Your task to perform on an android device: Open Google Chrome and click the shortcut for Amazon.com Image 0: 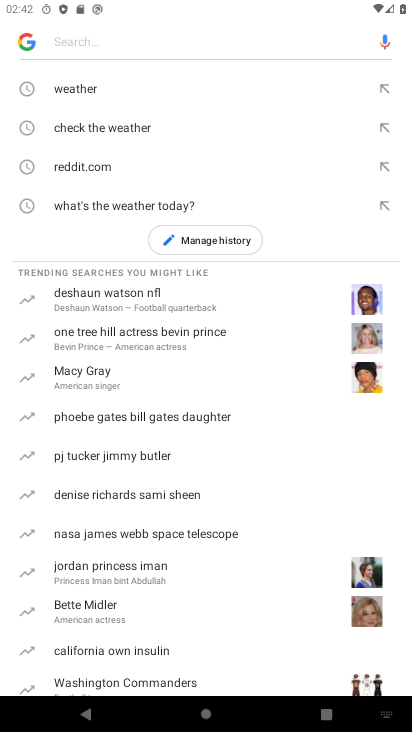
Step 0: press home button
Your task to perform on an android device: Open Google Chrome and click the shortcut for Amazon.com Image 1: 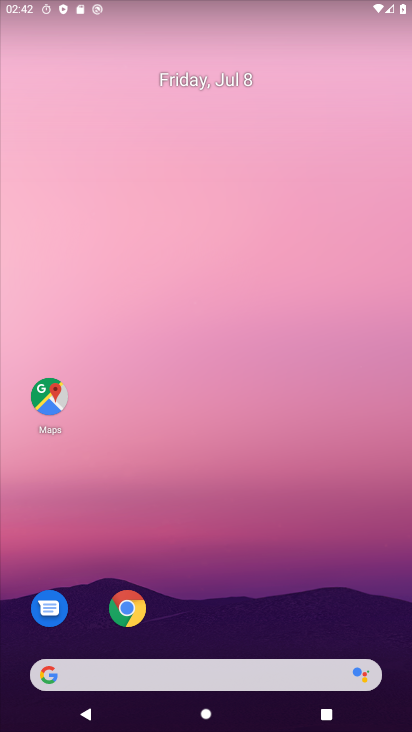
Step 1: click (130, 609)
Your task to perform on an android device: Open Google Chrome and click the shortcut for Amazon.com Image 2: 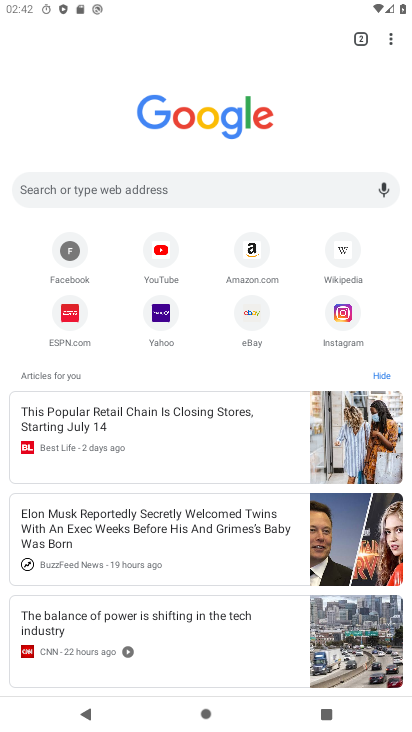
Step 2: click (249, 254)
Your task to perform on an android device: Open Google Chrome and click the shortcut for Amazon.com Image 3: 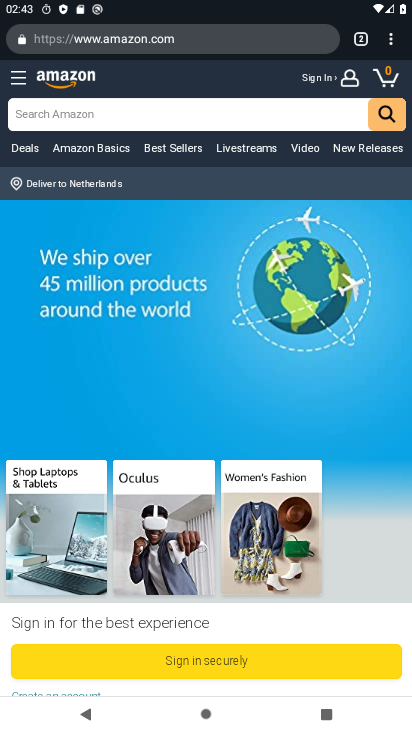
Step 3: task complete